Your task to perform on an android device: change the clock display to show seconds Image 0: 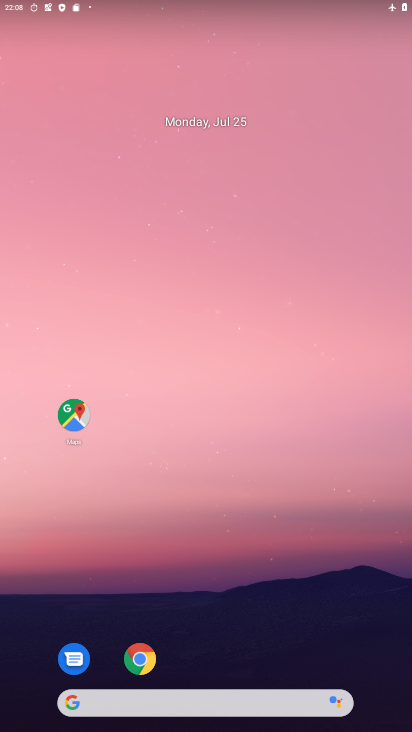
Step 0: drag from (205, 660) to (198, 229)
Your task to perform on an android device: change the clock display to show seconds Image 1: 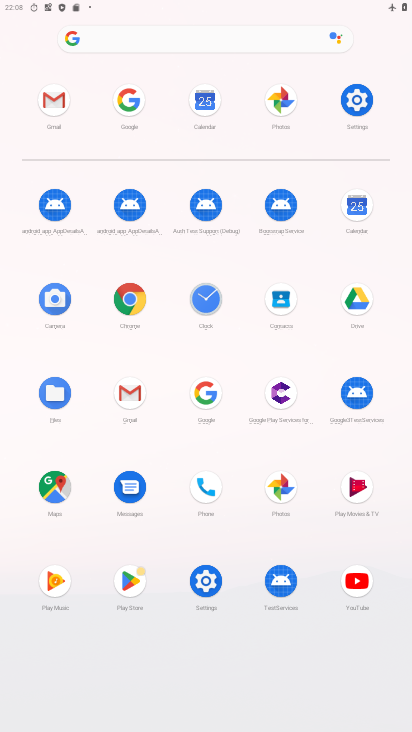
Step 1: click (198, 283)
Your task to perform on an android device: change the clock display to show seconds Image 2: 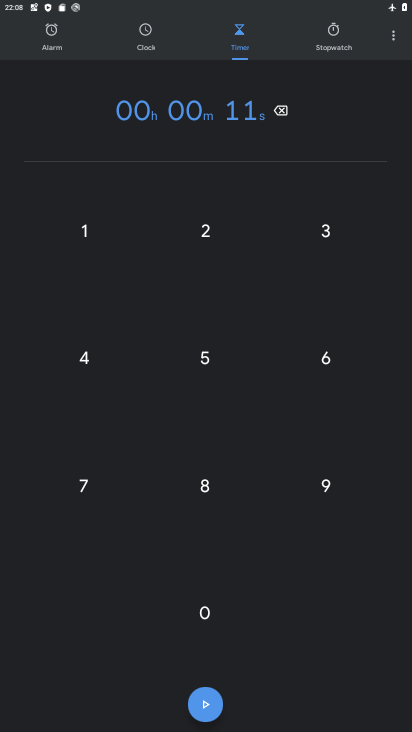
Step 2: click (393, 48)
Your task to perform on an android device: change the clock display to show seconds Image 3: 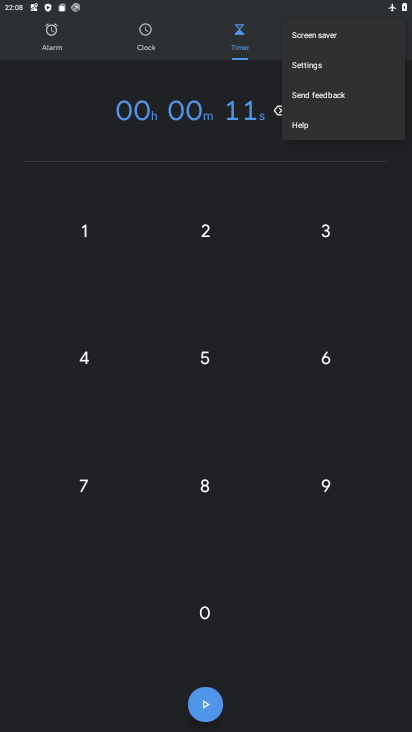
Step 3: click (342, 75)
Your task to perform on an android device: change the clock display to show seconds Image 4: 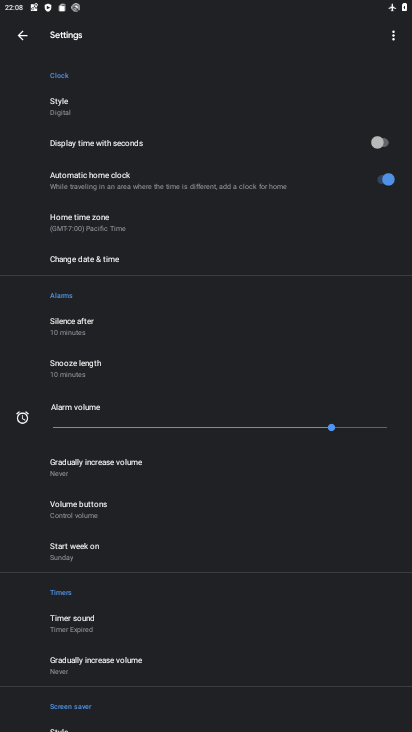
Step 4: click (391, 132)
Your task to perform on an android device: change the clock display to show seconds Image 5: 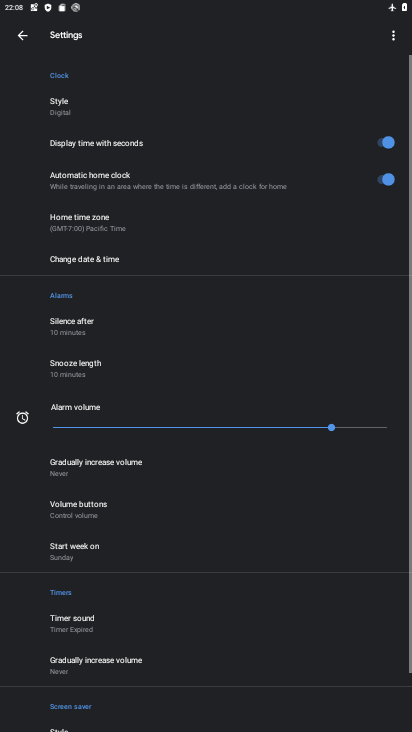
Step 5: task complete